Your task to perform on an android device: Go to Maps Image 0: 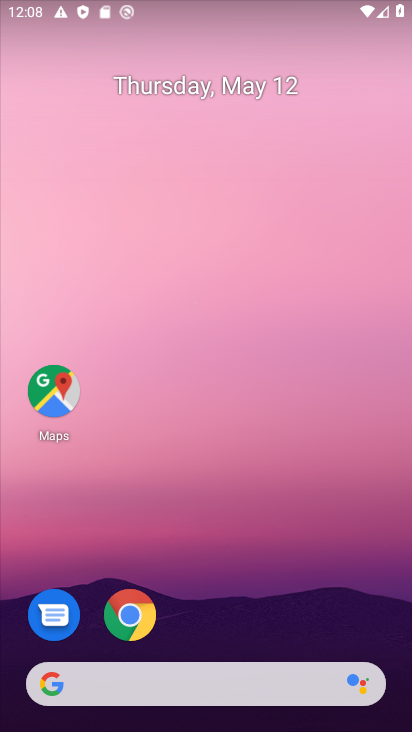
Step 0: drag from (291, 707) to (379, 184)
Your task to perform on an android device: Go to Maps Image 1: 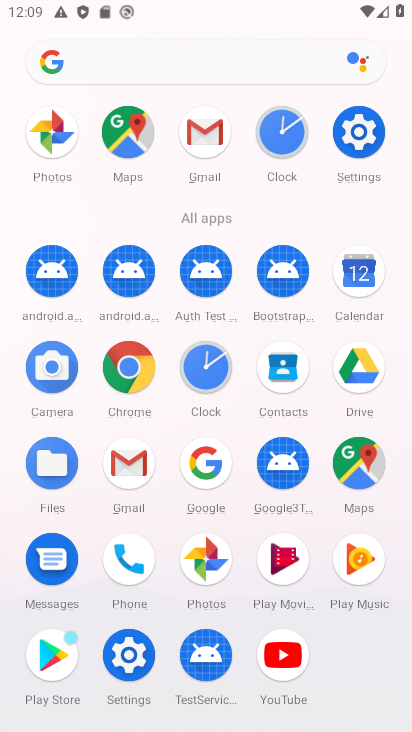
Step 1: click (349, 457)
Your task to perform on an android device: Go to Maps Image 2: 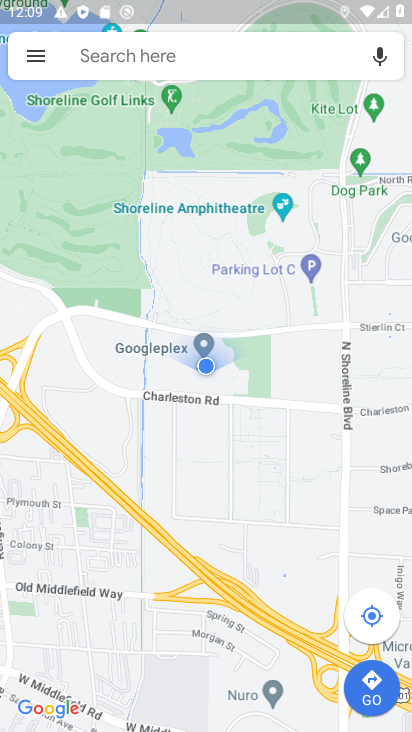
Step 2: click (183, 440)
Your task to perform on an android device: Go to Maps Image 3: 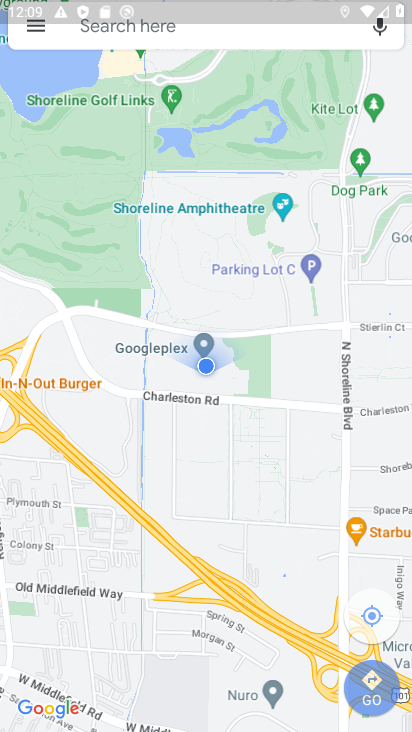
Step 3: task complete